Your task to perform on an android device: Go to network settings Image 0: 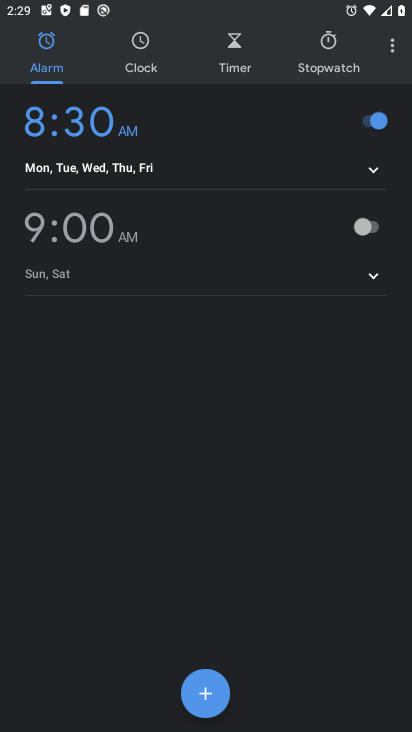
Step 0: press back button
Your task to perform on an android device: Go to network settings Image 1: 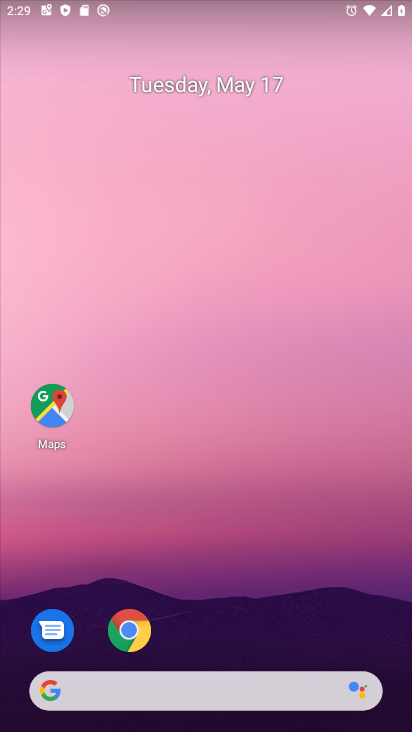
Step 1: drag from (242, 673) to (131, 176)
Your task to perform on an android device: Go to network settings Image 2: 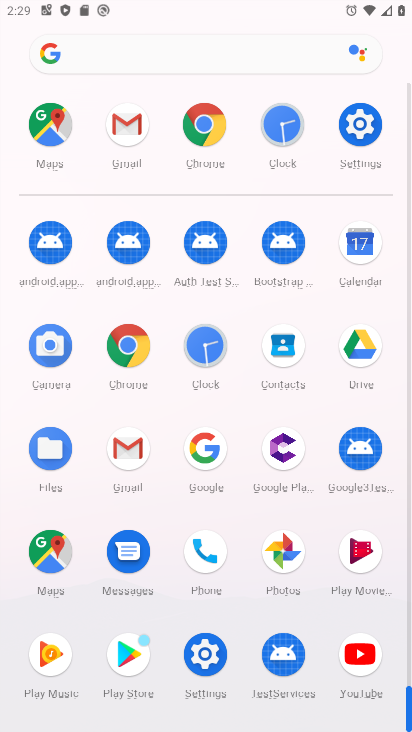
Step 2: click (366, 131)
Your task to perform on an android device: Go to network settings Image 3: 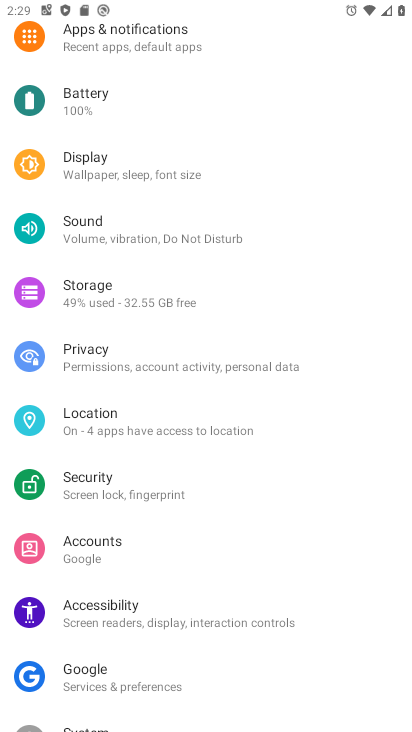
Step 3: drag from (139, 112) to (182, 522)
Your task to perform on an android device: Go to network settings Image 4: 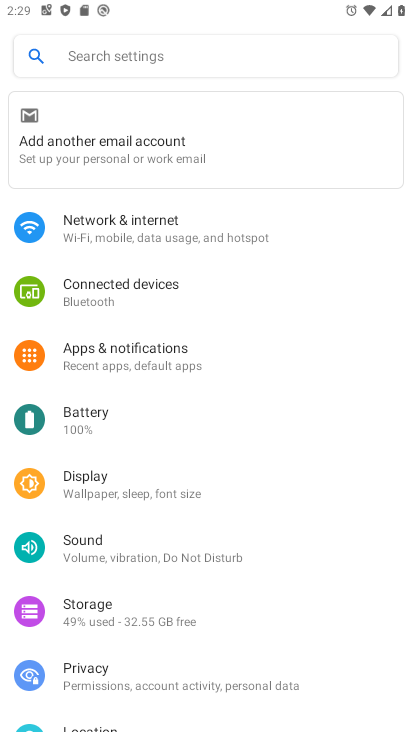
Step 4: click (114, 227)
Your task to perform on an android device: Go to network settings Image 5: 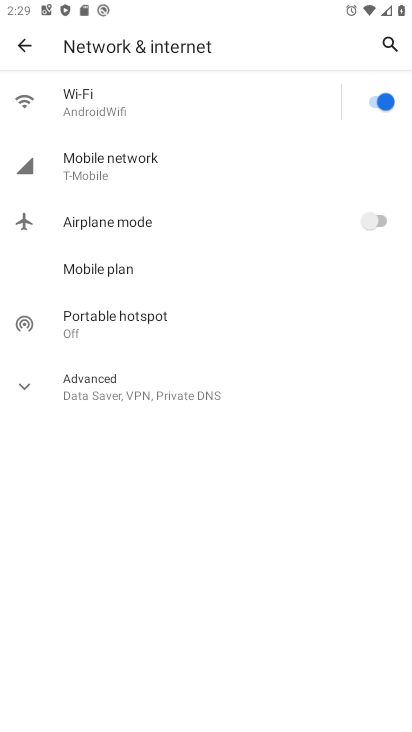
Step 5: task complete